Your task to perform on an android device: Open Yahoo.com Image 0: 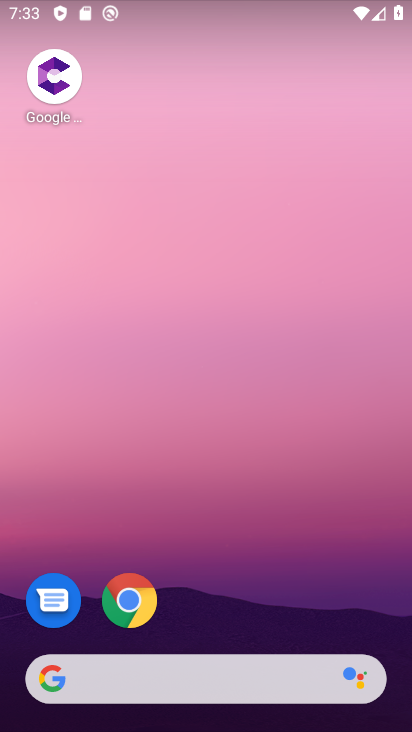
Step 0: click (134, 595)
Your task to perform on an android device: Open Yahoo.com Image 1: 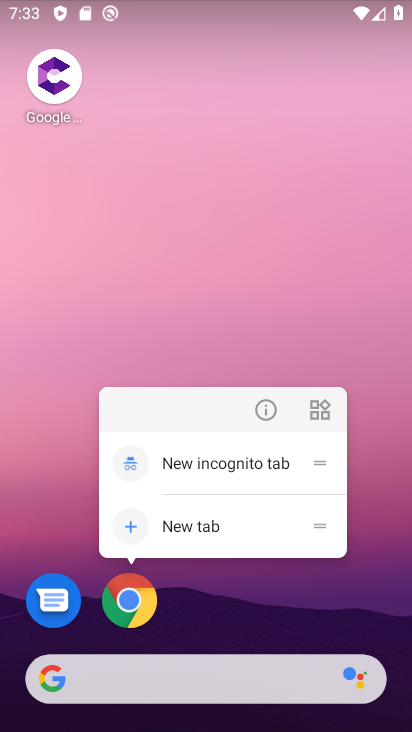
Step 1: click (134, 595)
Your task to perform on an android device: Open Yahoo.com Image 2: 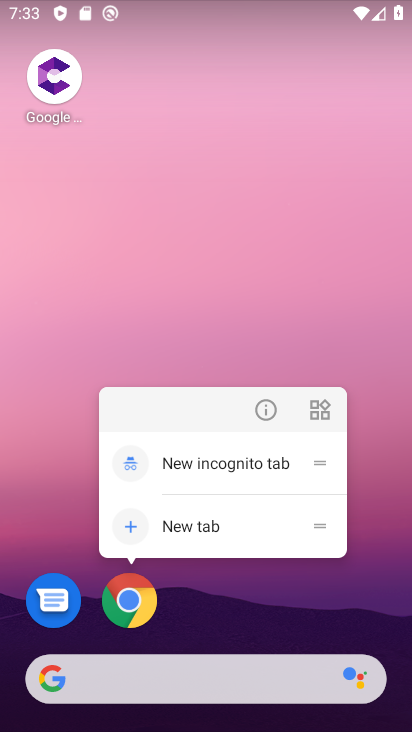
Step 2: click (226, 614)
Your task to perform on an android device: Open Yahoo.com Image 3: 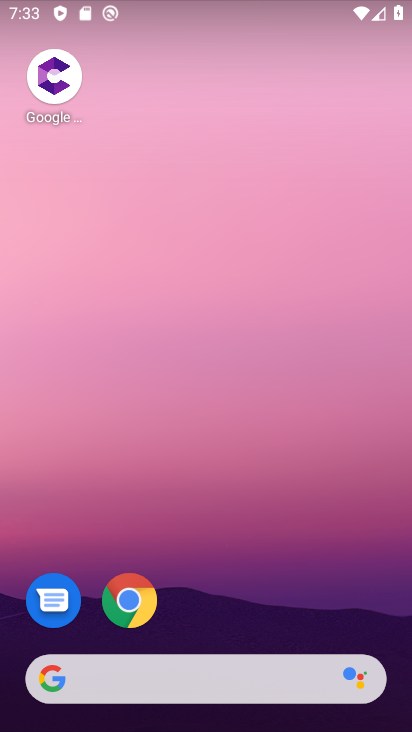
Step 3: drag from (320, 526) to (300, 143)
Your task to perform on an android device: Open Yahoo.com Image 4: 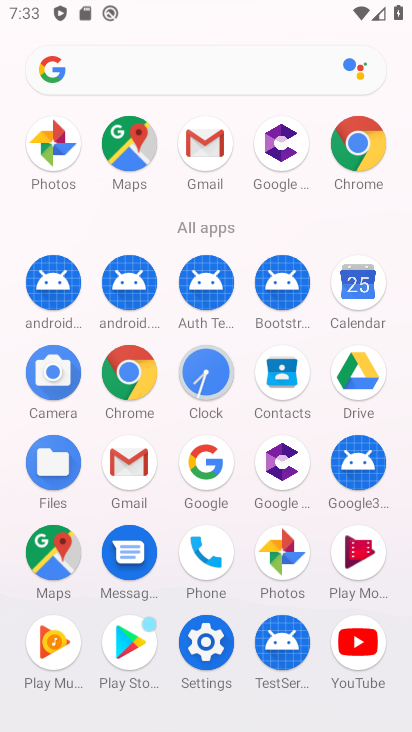
Step 4: click (358, 146)
Your task to perform on an android device: Open Yahoo.com Image 5: 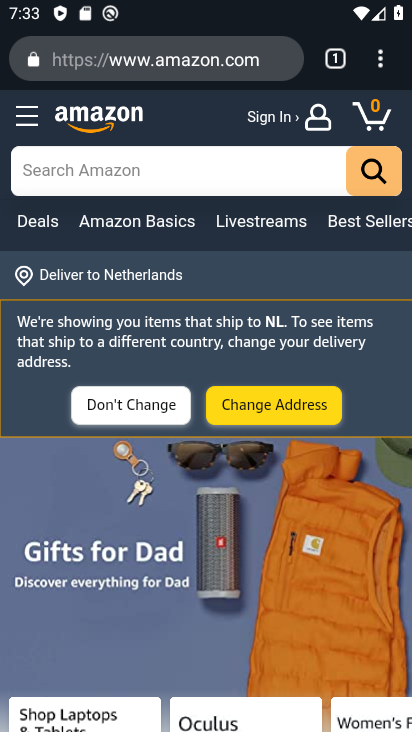
Step 5: click (192, 64)
Your task to perform on an android device: Open Yahoo.com Image 6: 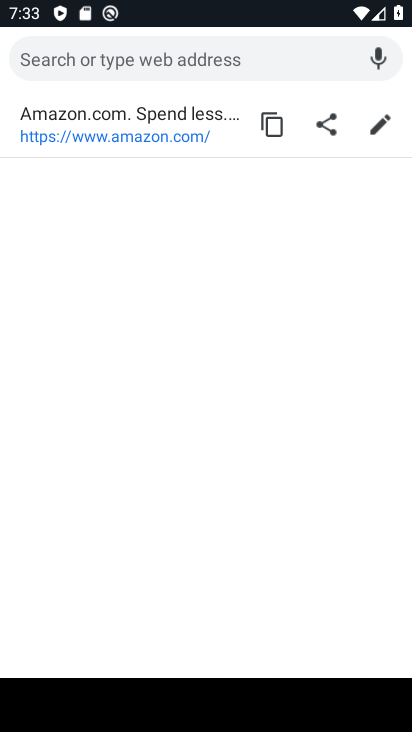
Step 6: type "yahoo.com"
Your task to perform on an android device: Open Yahoo.com Image 7: 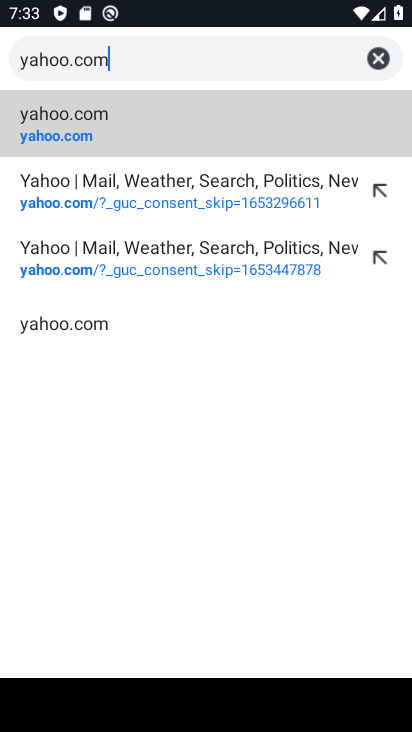
Step 7: click (68, 135)
Your task to perform on an android device: Open Yahoo.com Image 8: 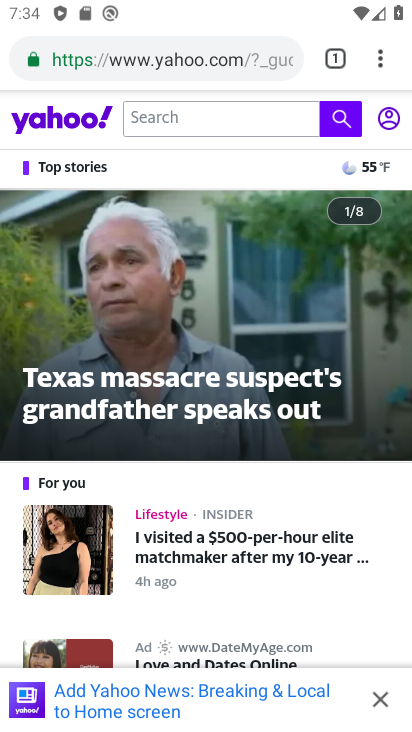
Step 8: task complete